Your task to perform on an android device: visit the assistant section in the google photos Image 0: 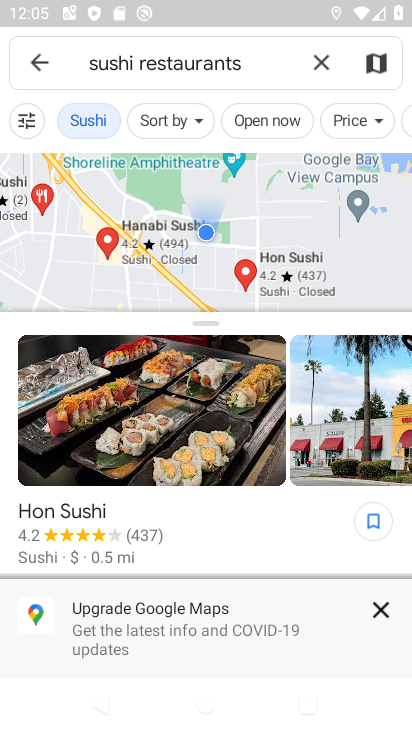
Step 0: press home button
Your task to perform on an android device: visit the assistant section in the google photos Image 1: 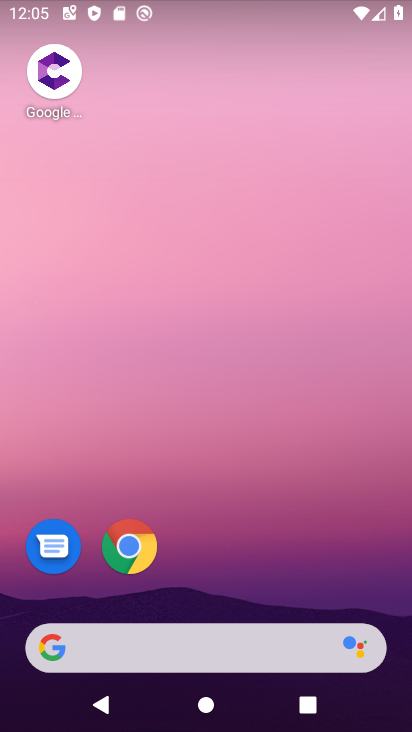
Step 1: drag from (145, 727) to (169, 17)
Your task to perform on an android device: visit the assistant section in the google photos Image 2: 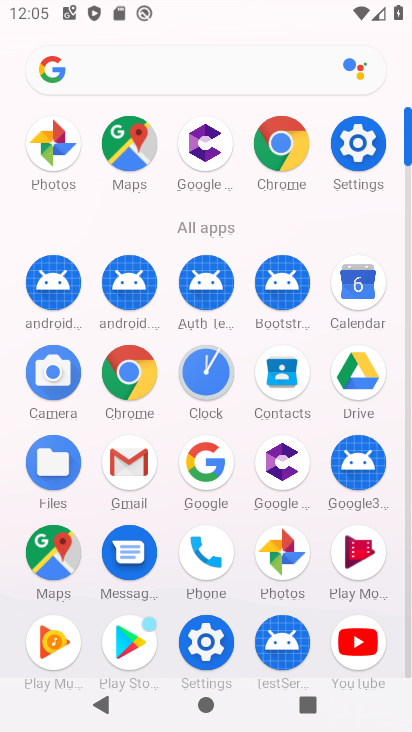
Step 2: click (263, 557)
Your task to perform on an android device: visit the assistant section in the google photos Image 3: 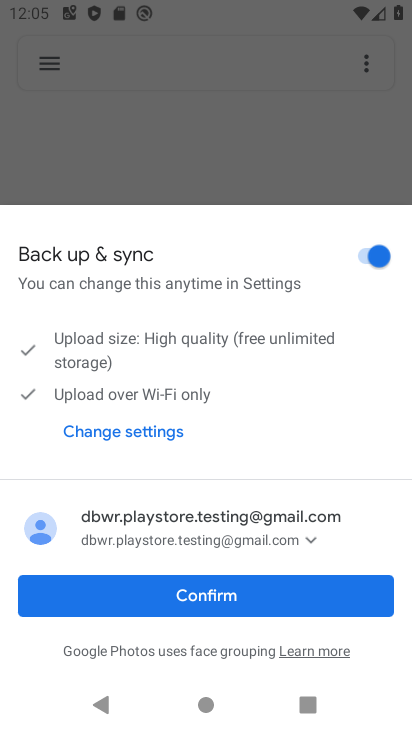
Step 3: click (243, 595)
Your task to perform on an android device: visit the assistant section in the google photos Image 4: 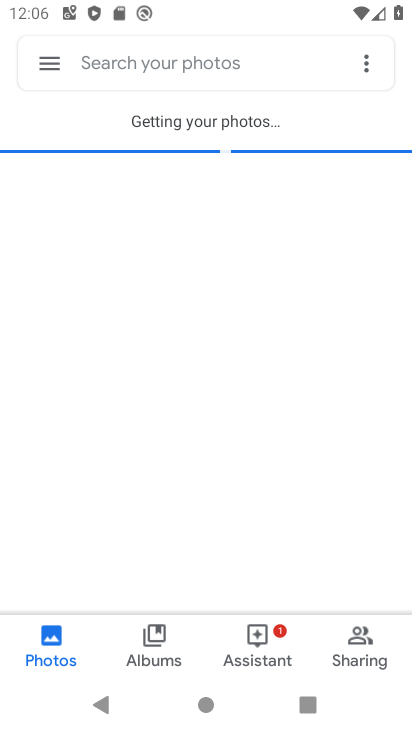
Step 4: click (250, 643)
Your task to perform on an android device: visit the assistant section in the google photos Image 5: 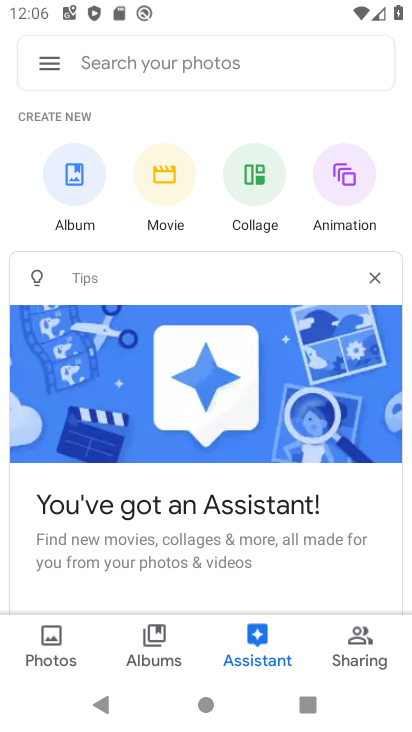
Step 5: task complete